Your task to perform on an android device: Show me popular videos on Youtube Image 0: 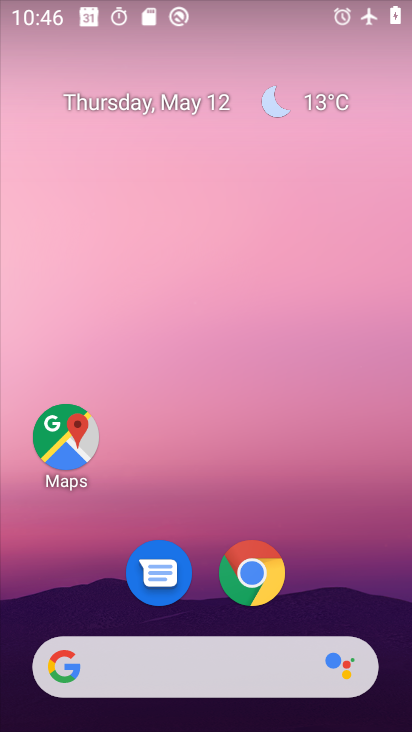
Step 0: drag from (398, 560) to (355, 179)
Your task to perform on an android device: Show me popular videos on Youtube Image 1: 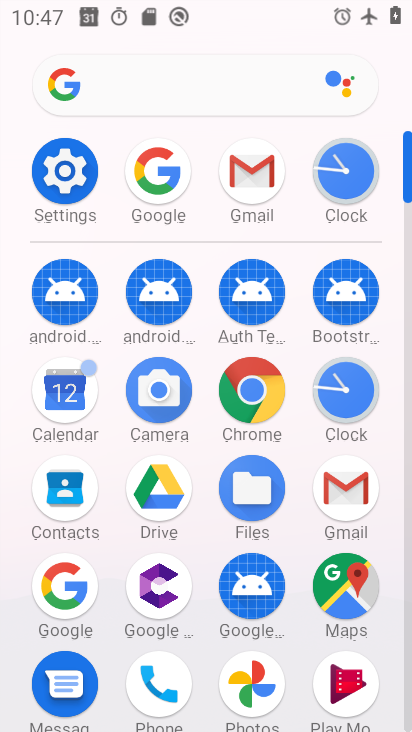
Step 1: click (76, 162)
Your task to perform on an android device: Show me popular videos on Youtube Image 2: 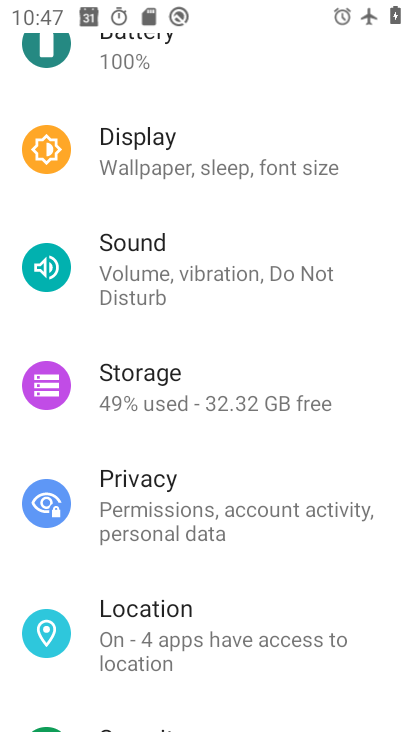
Step 2: drag from (362, 284) to (350, 421)
Your task to perform on an android device: Show me popular videos on Youtube Image 3: 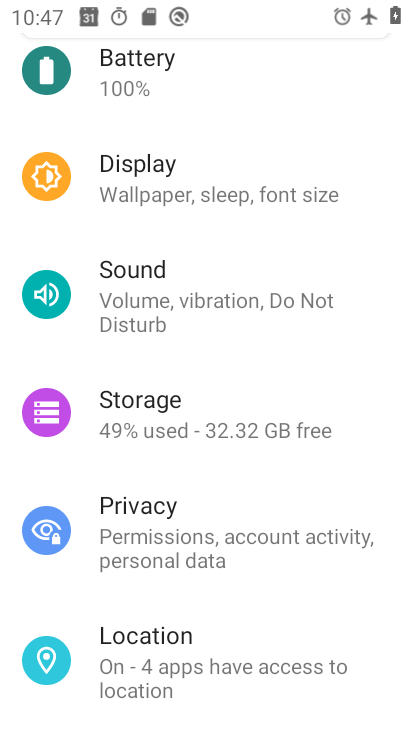
Step 3: drag from (300, 130) to (269, 427)
Your task to perform on an android device: Show me popular videos on Youtube Image 4: 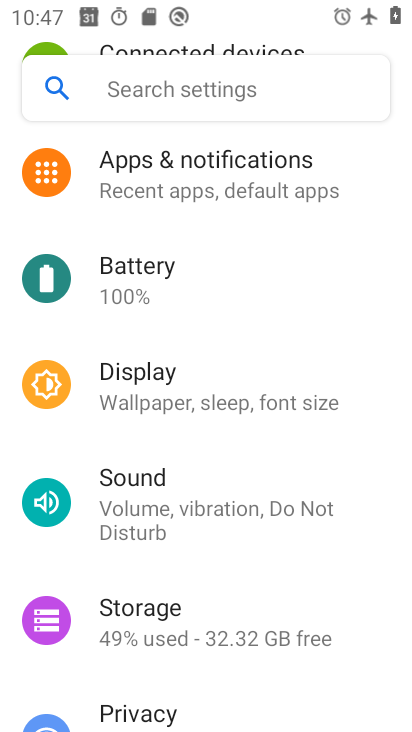
Step 4: drag from (293, 219) to (290, 422)
Your task to perform on an android device: Show me popular videos on Youtube Image 5: 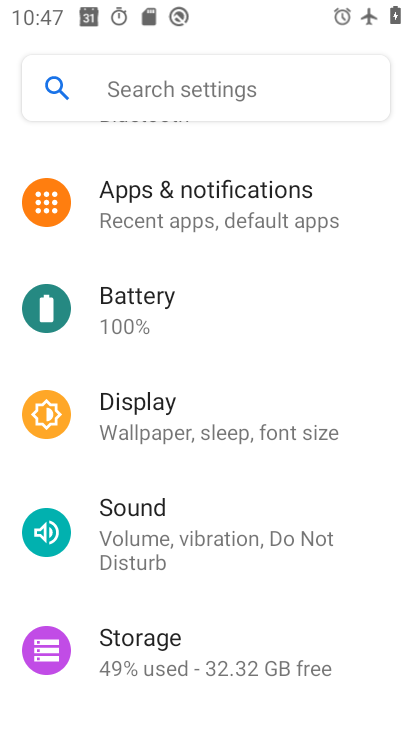
Step 5: drag from (289, 278) to (281, 485)
Your task to perform on an android device: Show me popular videos on Youtube Image 6: 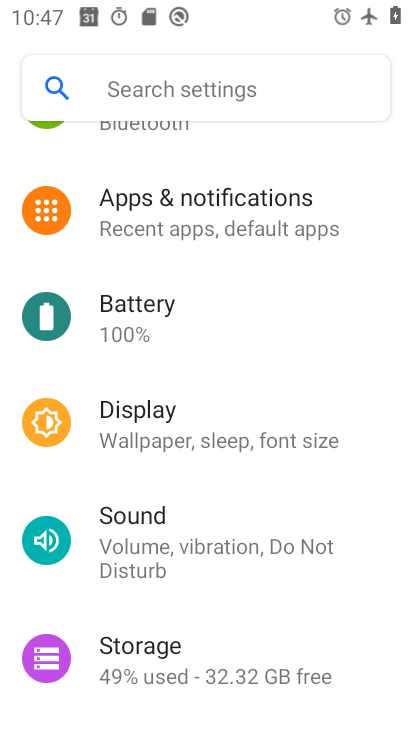
Step 6: drag from (302, 157) to (283, 384)
Your task to perform on an android device: Show me popular videos on Youtube Image 7: 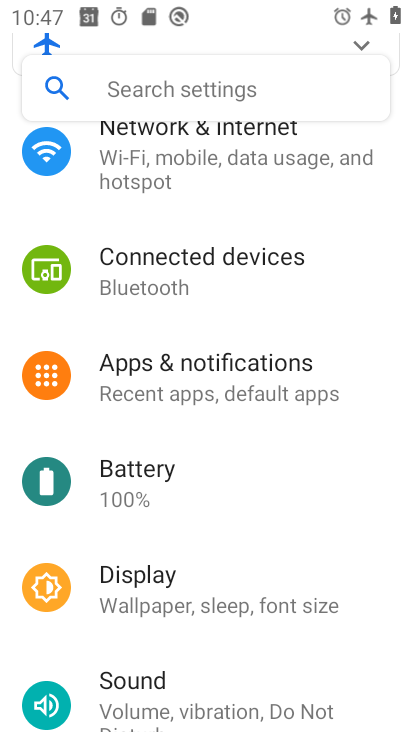
Step 7: drag from (306, 203) to (302, 410)
Your task to perform on an android device: Show me popular videos on Youtube Image 8: 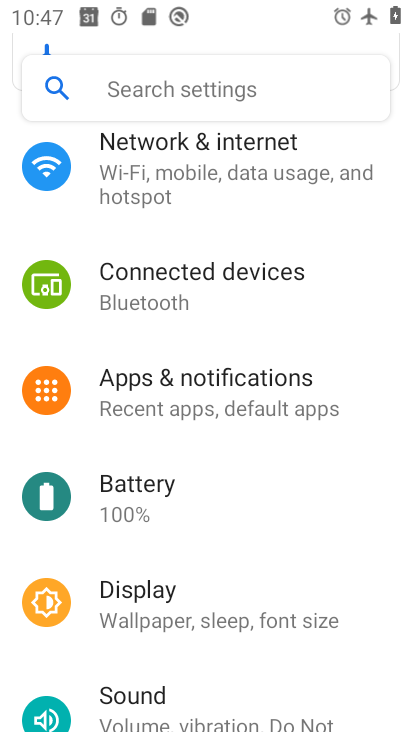
Step 8: drag from (307, 247) to (306, 469)
Your task to perform on an android device: Show me popular videos on Youtube Image 9: 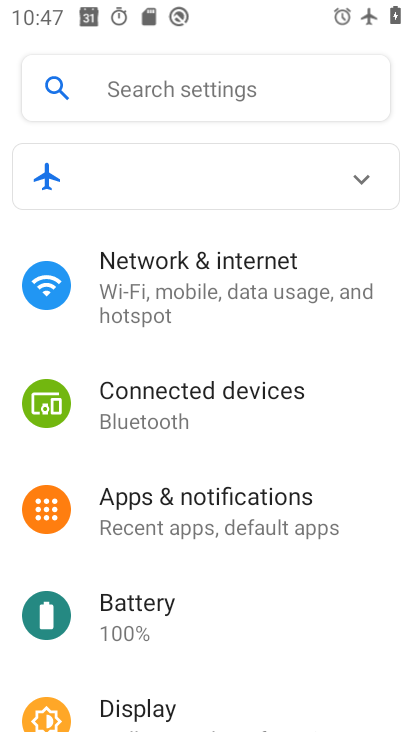
Step 9: click (189, 287)
Your task to perform on an android device: Show me popular videos on Youtube Image 10: 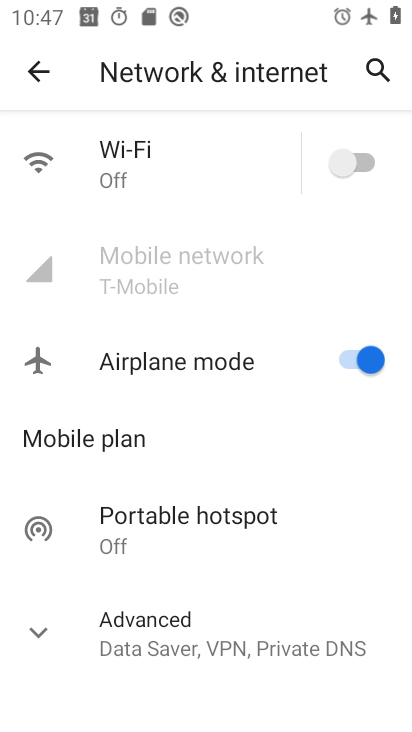
Step 10: press home button
Your task to perform on an android device: Show me popular videos on Youtube Image 11: 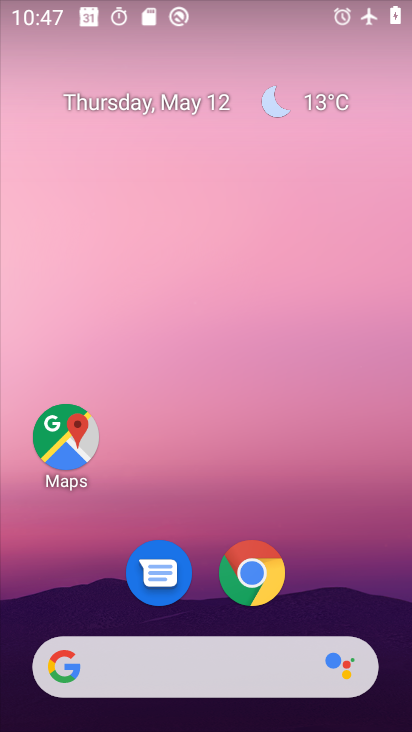
Step 11: drag from (398, 533) to (412, 79)
Your task to perform on an android device: Show me popular videos on Youtube Image 12: 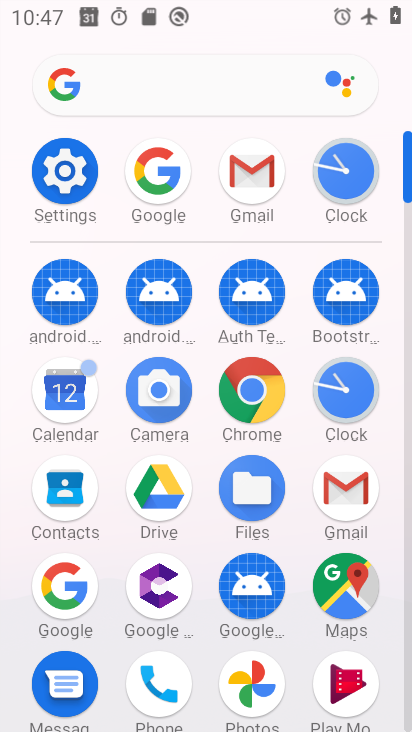
Step 12: click (66, 178)
Your task to perform on an android device: Show me popular videos on Youtube Image 13: 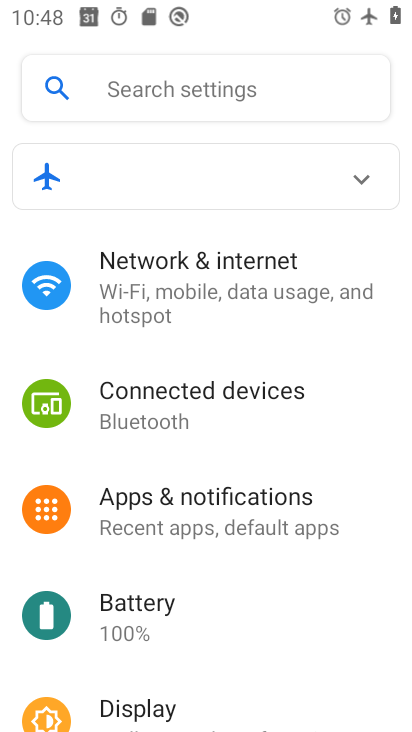
Step 13: click (141, 267)
Your task to perform on an android device: Show me popular videos on Youtube Image 14: 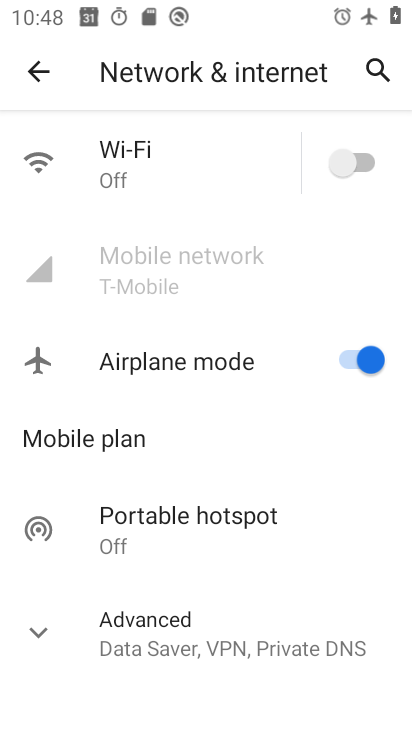
Step 14: click (367, 158)
Your task to perform on an android device: Show me popular videos on Youtube Image 15: 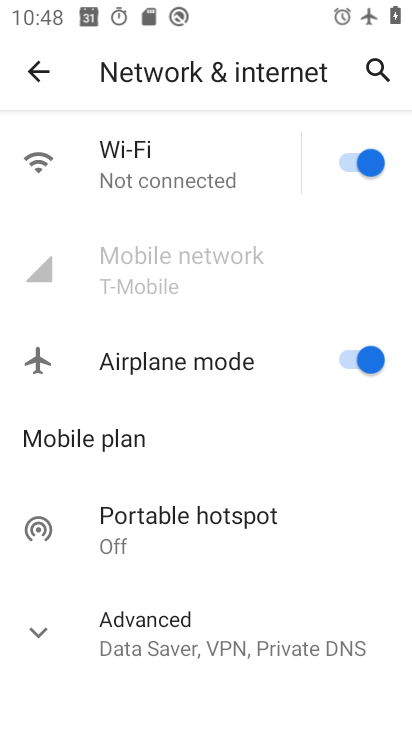
Step 15: click (349, 364)
Your task to perform on an android device: Show me popular videos on Youtube Image 16: 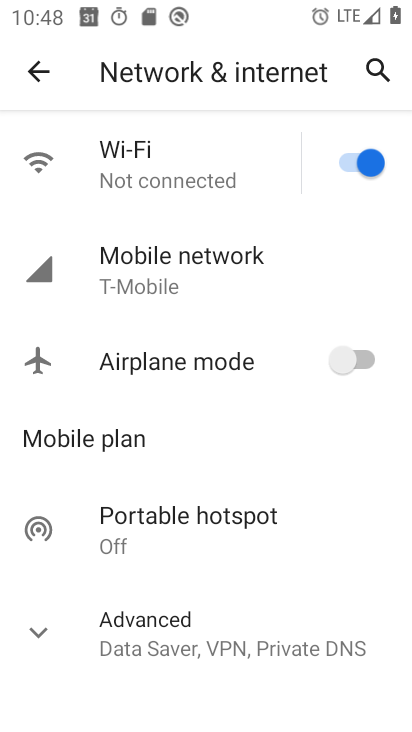
Step 16: click (33, 72)
Your task to perform on an android device: Show me popular videos on Youtube Image 17: 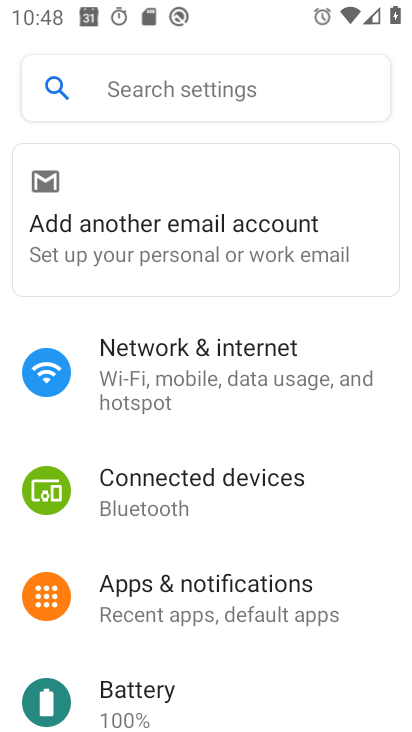
Step 17: click (33, 72)
Your task to perform on an android device: Show me popular videos on Youtube Image 18: 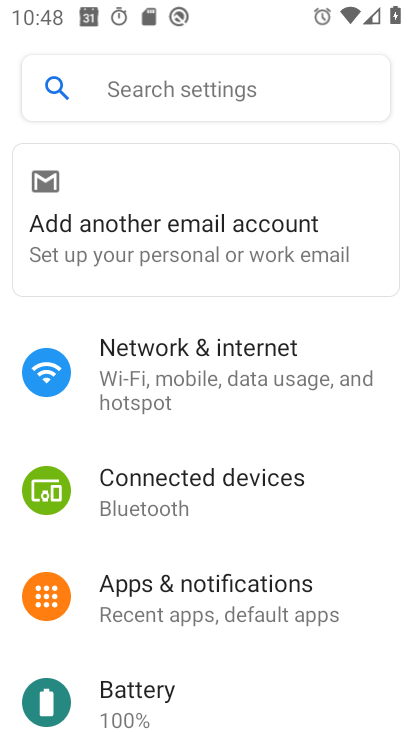
Step 18: press home button
Your task to perform on an android device: Show me popular videos on Youtube Image 19: 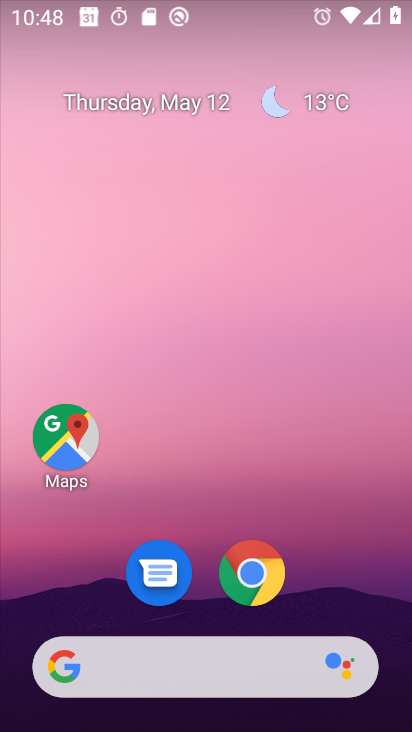
Step 19: click (375, 214)
Your task to perform on an android device: Show me popular videos on Youtube Image 20: 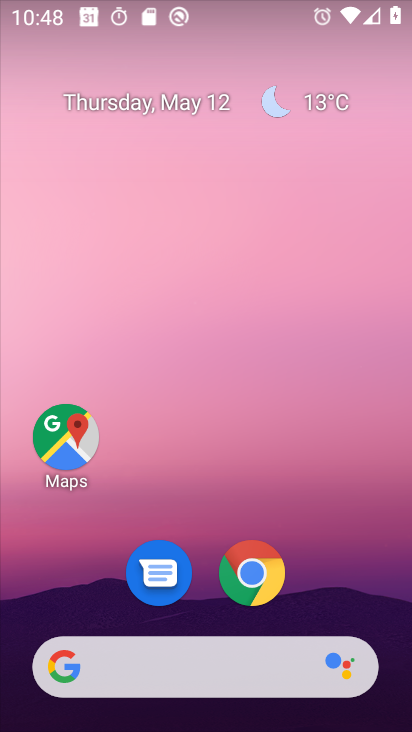
Step 20: drag from (388, 427) to (378, 288)
Your task to perform on an android device: Show me popular videos on Youtube Image 21: 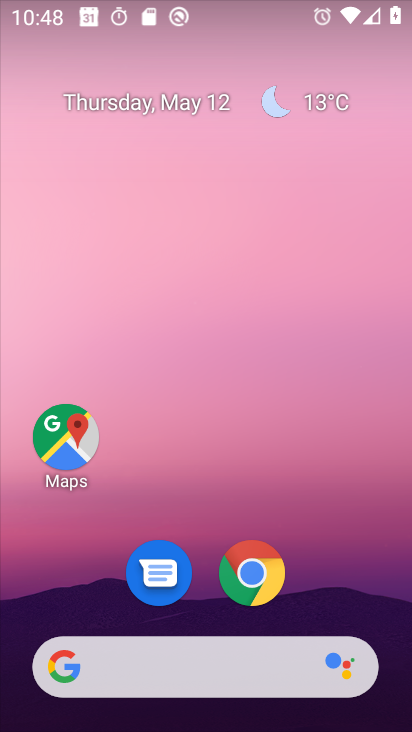
Step 21: drag from (397, 601) to (390, 327)
Your task to perform on an android device: Show me popular videos on Youtube Image 22: 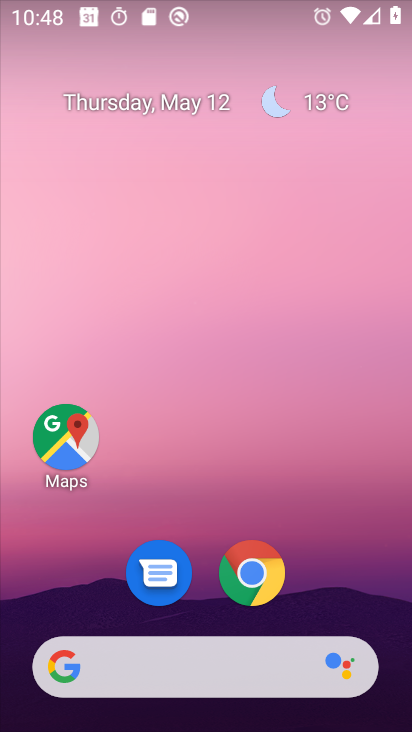
Step 22: click (362, 51)
Your task to perform on an android device: Show me popular videos on Youtube Image 23: 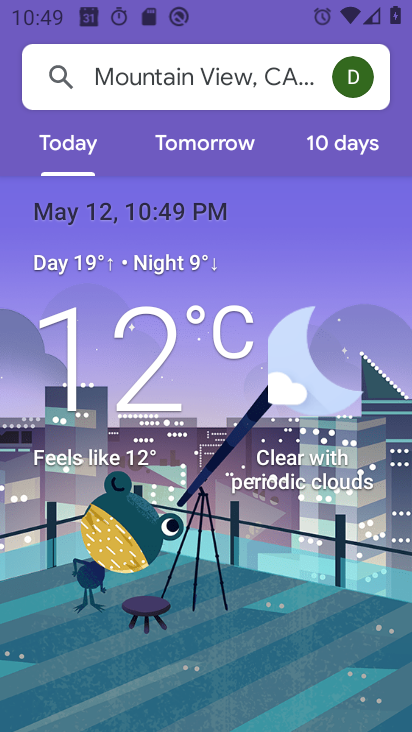
Step 23: press back button
Your task to perform on an android device: Show me popular videos on Youtube Image 24: 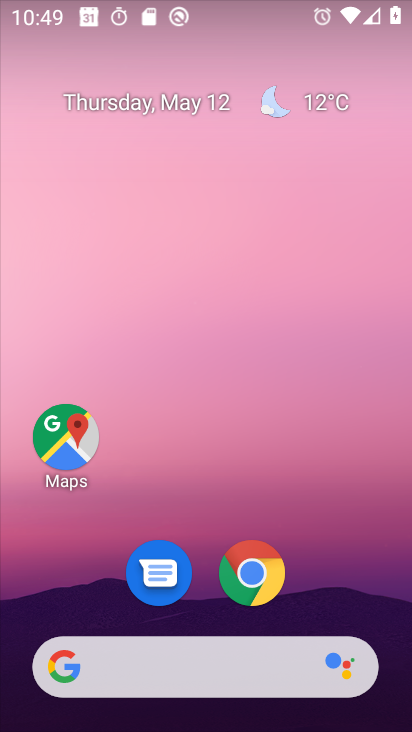
Step 24: drag from (382, 405) to (351, 168)
Your task to perform on an android device: Show me popular videos on Youtube Image 25: 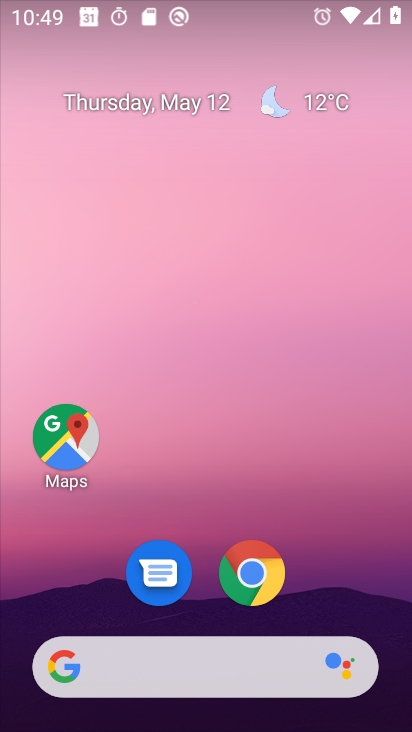
Step 25: drag from (395, 671) to (336, 235)
Your task to perform on an android device: Show me popular videos on Youtube Image 26: 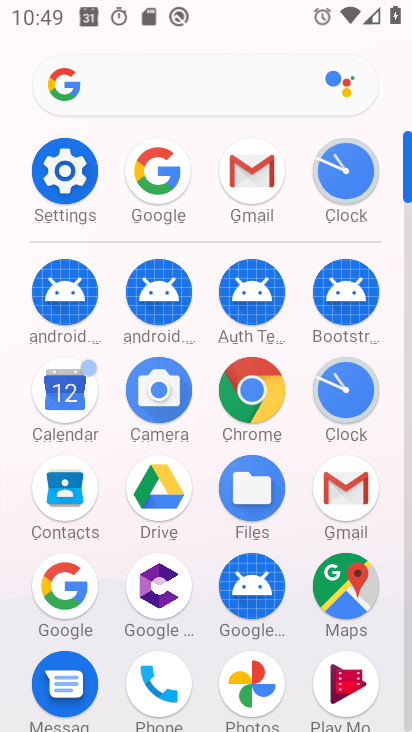
Step 26: drag from (297, 646) to (313, 357)
Your task to perform on an android device: Show me popular videos on Youtube Image 27: 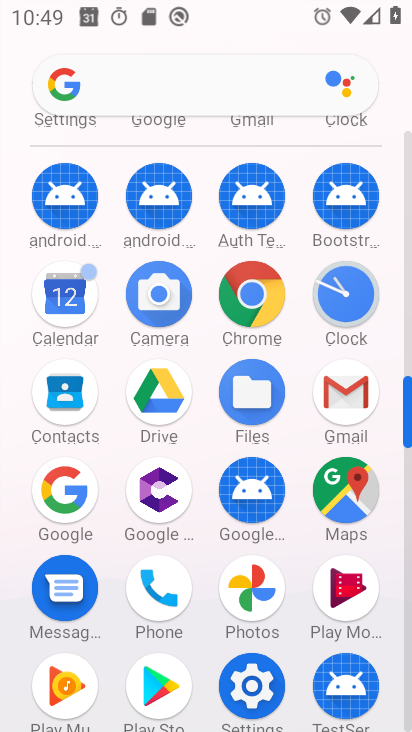
Step 27: drag from (297, 599) to (273, 350)
Your task to perform on an android device: Show me popular videos on Youtube Image 28: 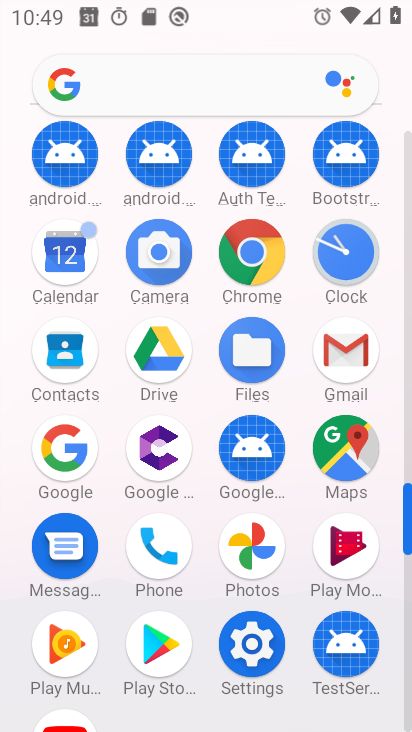
Step 28: drag from (299, 658) to (287, 396)
Your task to perform on an android device: Show me popular videos on Youtube Image 29: 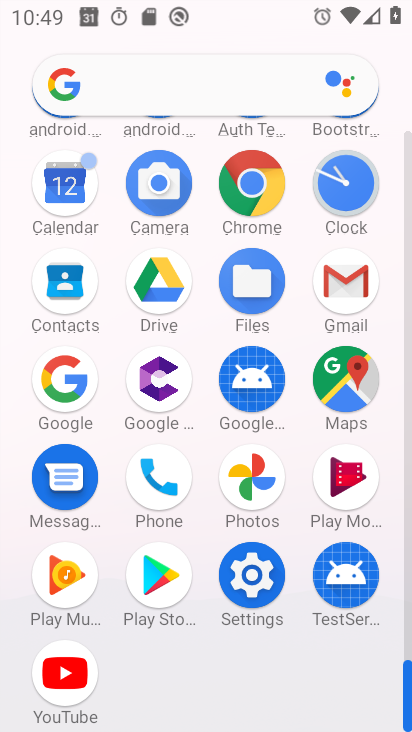
Step 29: click (62, 666)
Your task to perform on an android device: Show me popular videos on Youtube Image 30: 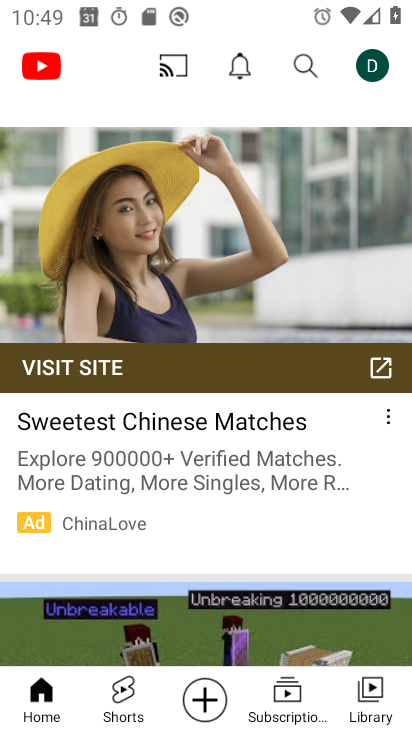
Step 30: click (300, 63)
Your task to perform on an android device: Show me popular videos on Youtube Image 31: 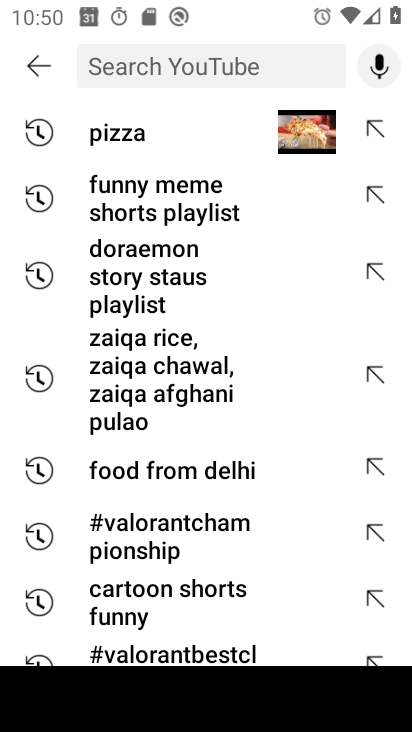
Step 31: type "popular videos"
Your task to perform on an android device: Show me popular videos on Youtube Image 32: 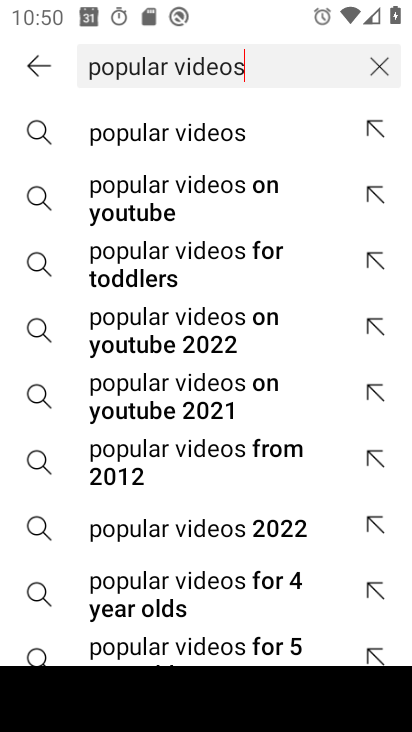
Step 32: click (182, 134)
Your task to perform on an android device: Show me popular videos on Youtube Image 33: 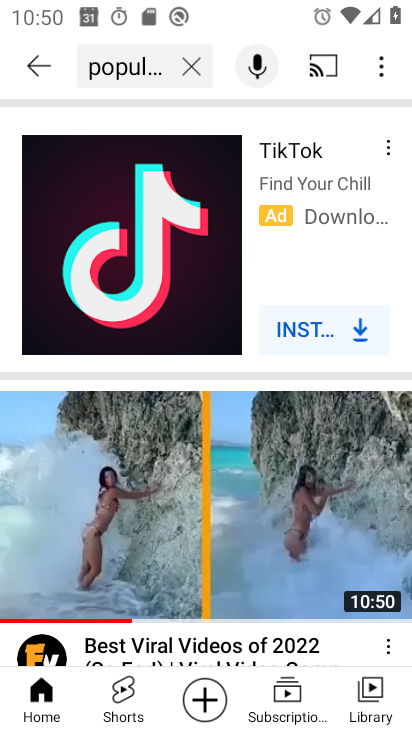
Step 33: task complete